Your task to perform on an android device: install app "DuckDuckGo Privacy Browser" Image 0: 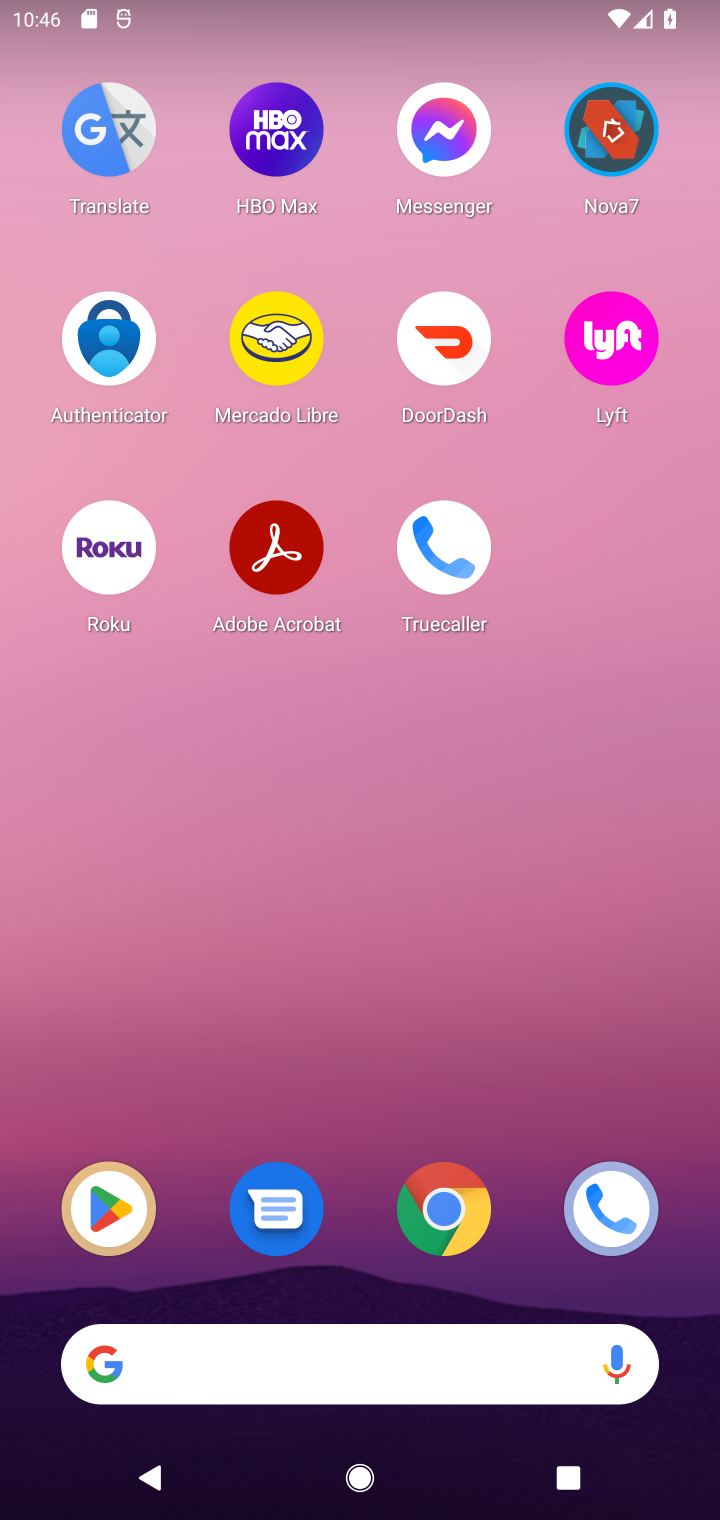
Step 0: drag from (543, 1041) to (512, 17)
Your task to perform on an android device: install app "DuckDuckGo Privacy Browser" Image 1: 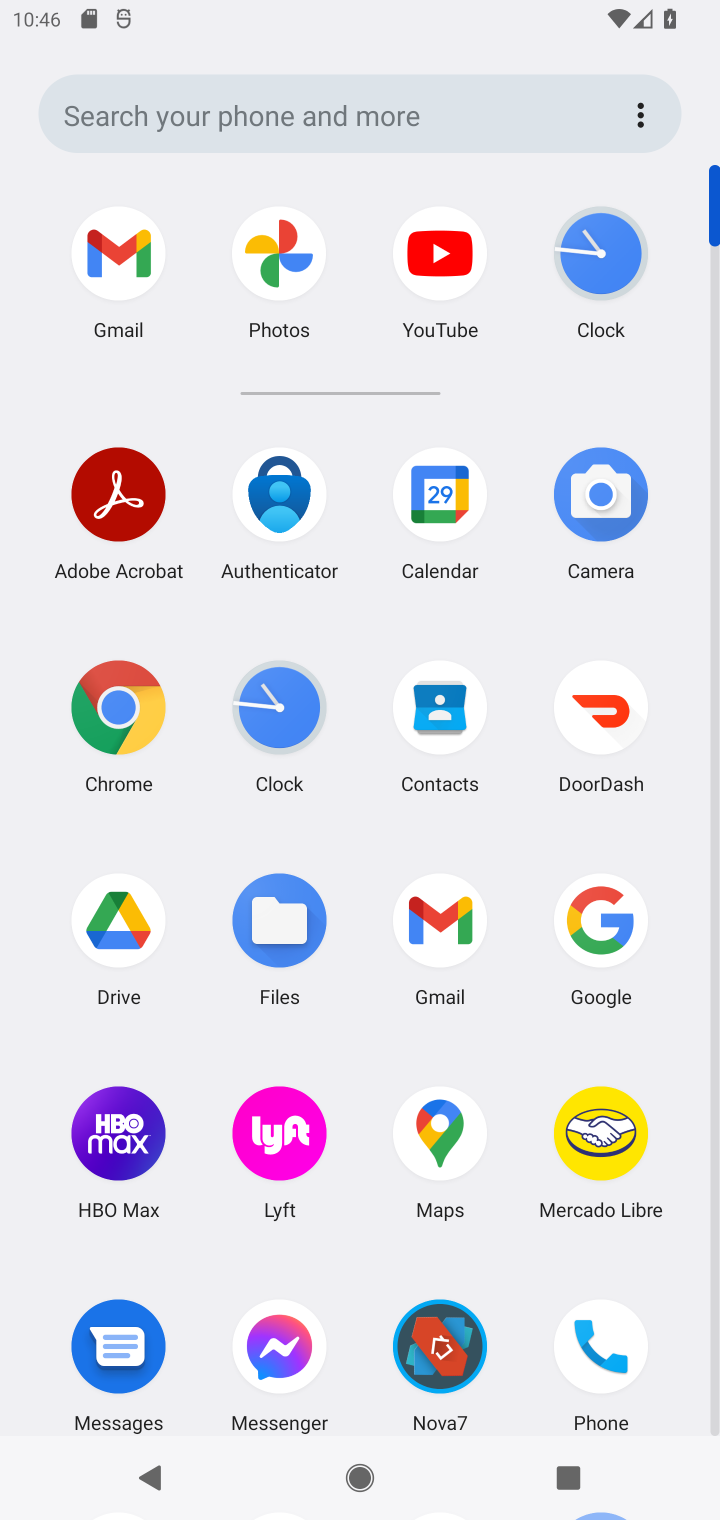
Step 1: drag from (345, 1243) to (387, 508)
Your task to perform on an android device: install app "DuckDuckGo Privacy Browser" Image 2: 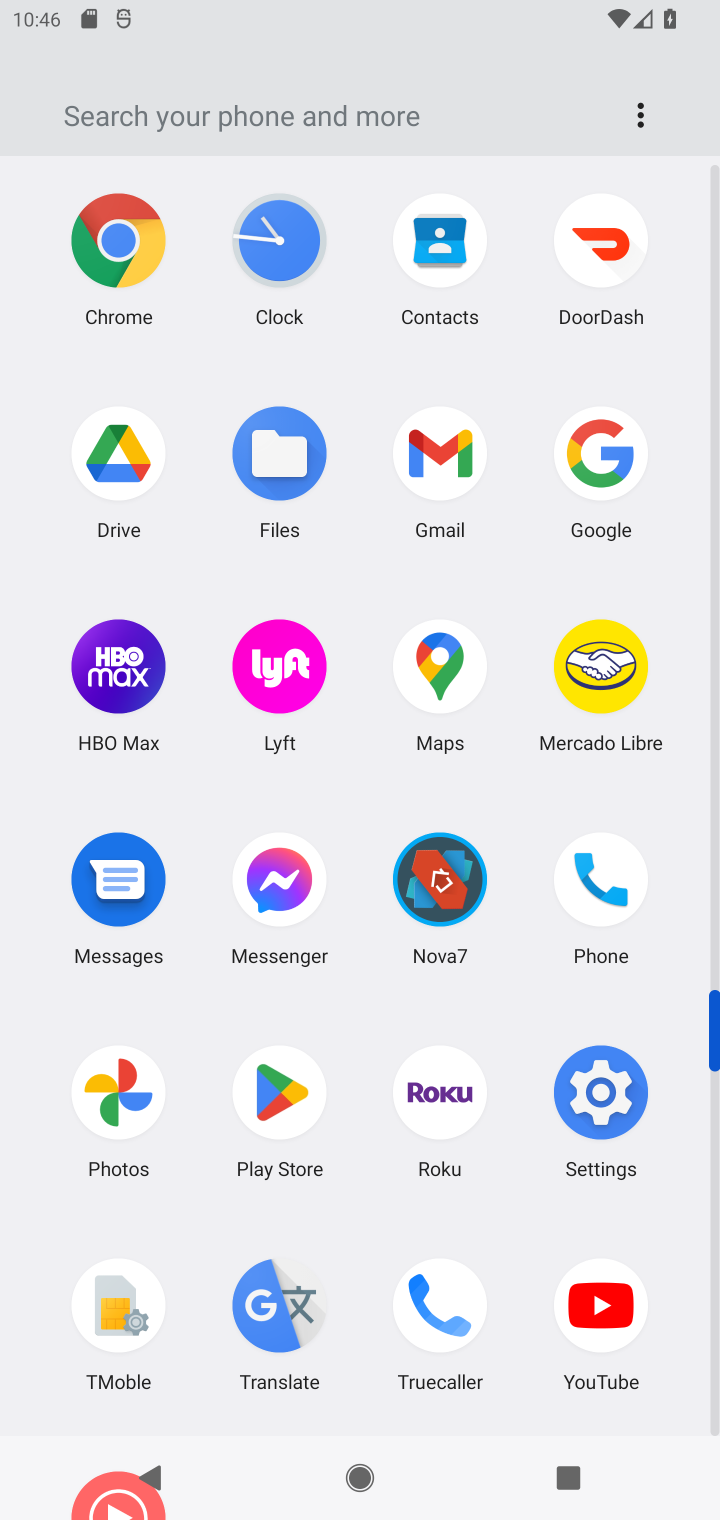
Step 2: click (267, 1086)
Your task to perform on an android device: install app "DuckDuckGo Privacy Browser" Image 3: 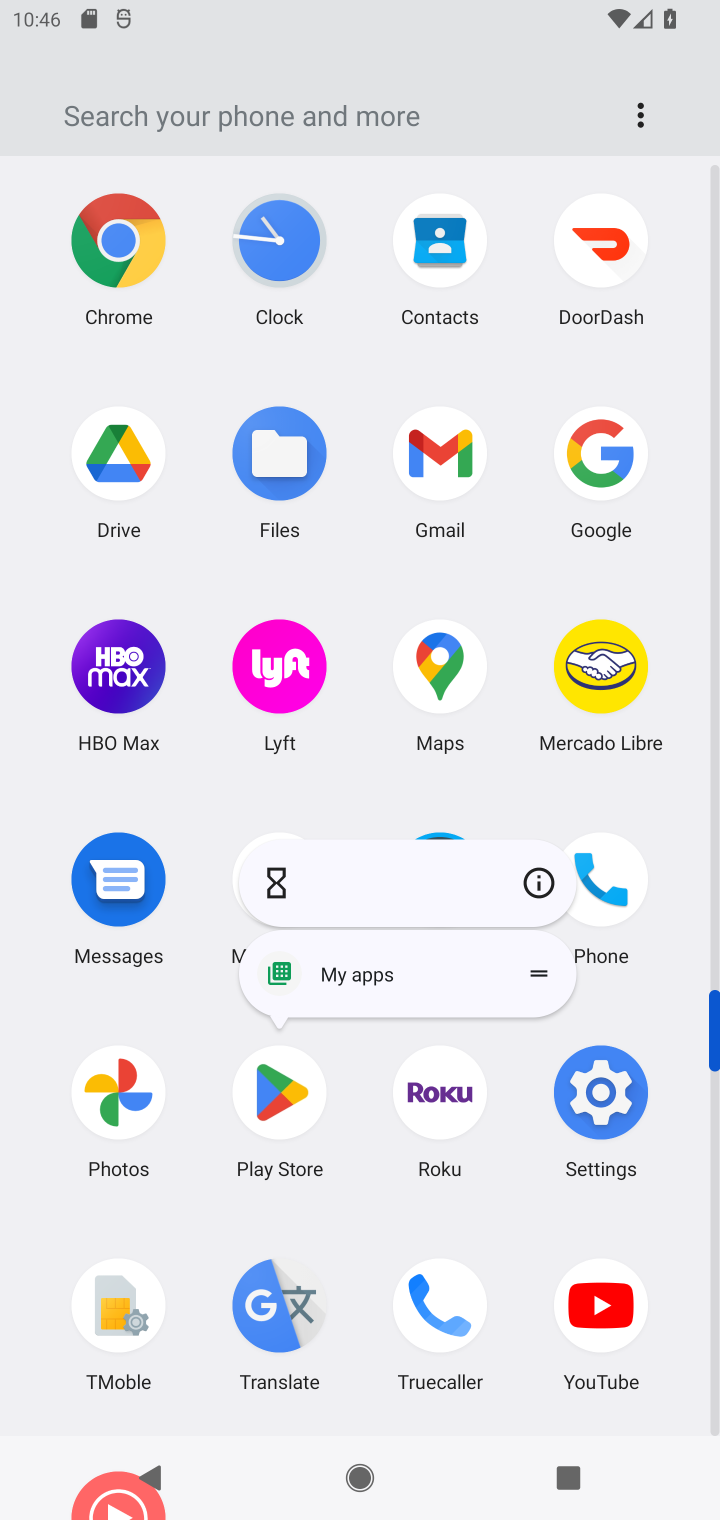
Step 3: click (267, 1086)
Your task to perform on an android device: install app "DuckDuckGo Privacy Browser" Image 4: 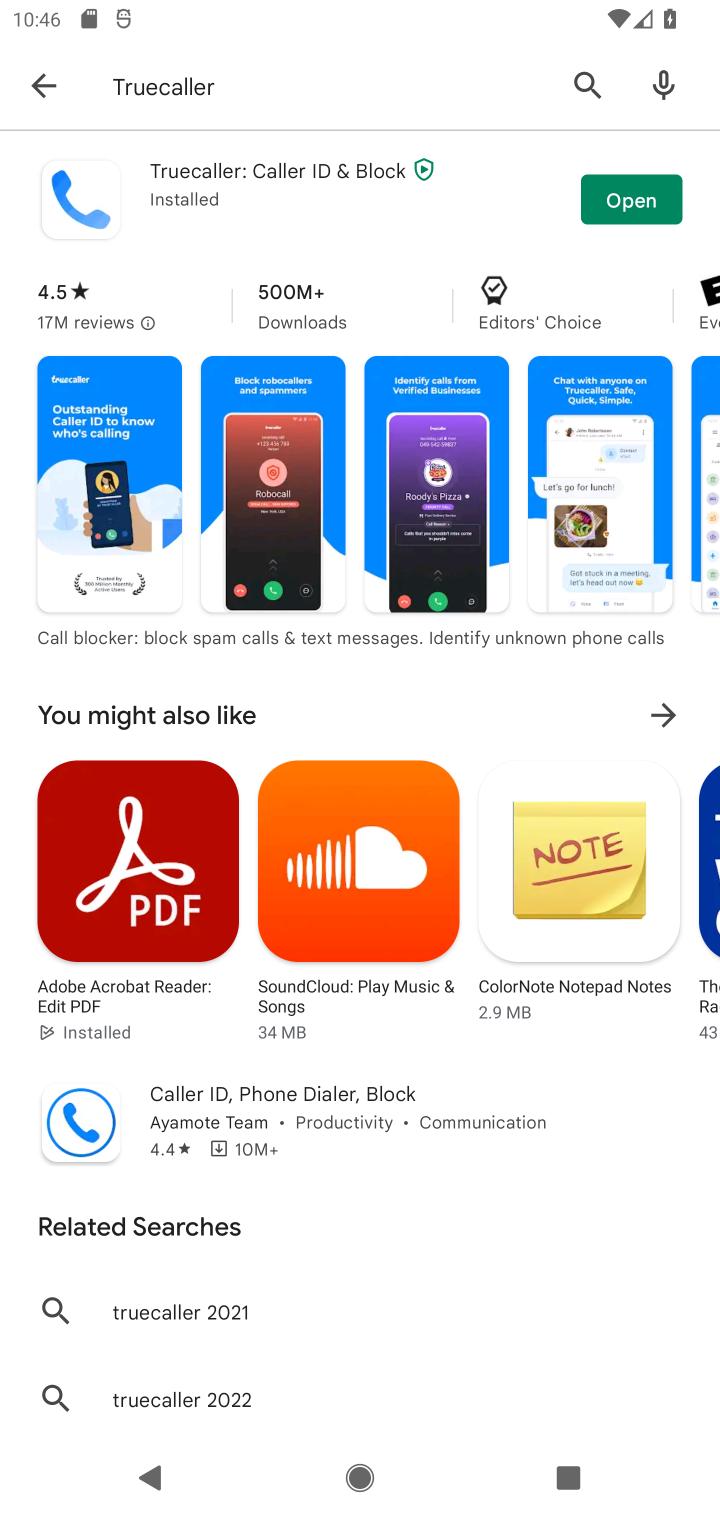
Step 4: click (341, 65)
Your task to perform on an android device: install app "DuckDuckGo Privacy Browser" Image 5: 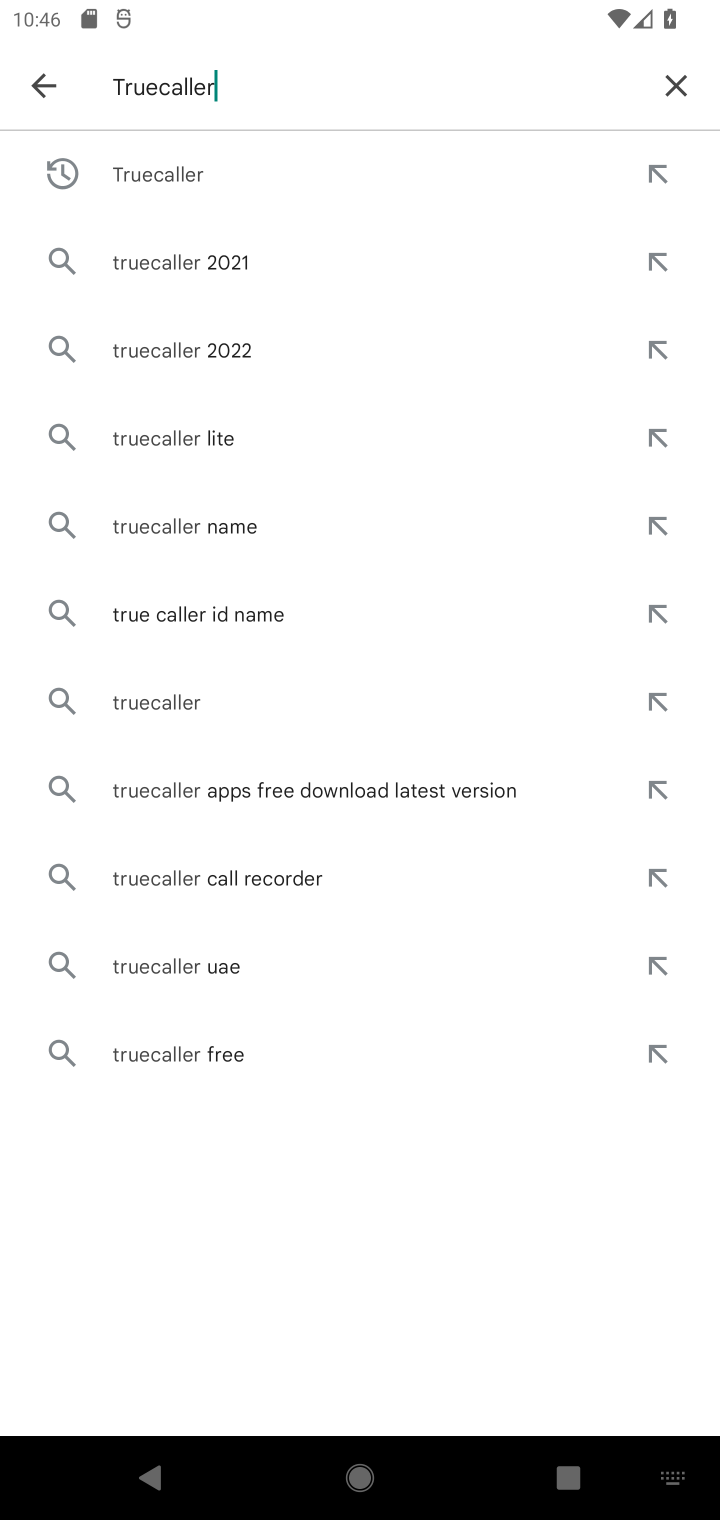
Step 5: click (674, 101)
Your task to perform on an android device: install app "DuckDuckGo Privacy Browser" Image 6: 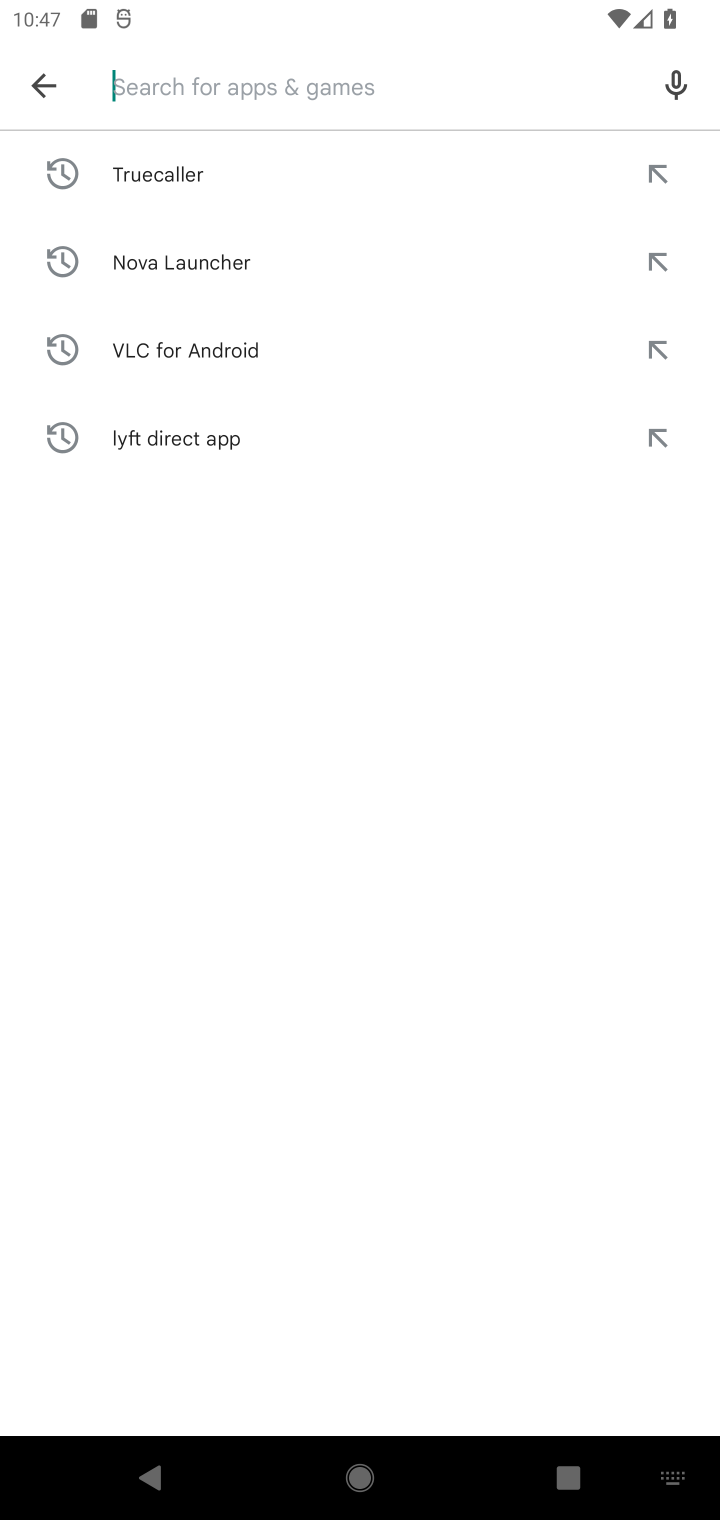
Step 6: type "DuckDuckGo Privacy Browser"
Your task to perform on an android device: install app "DuckDuckGo Privacy Browser" Image 7: 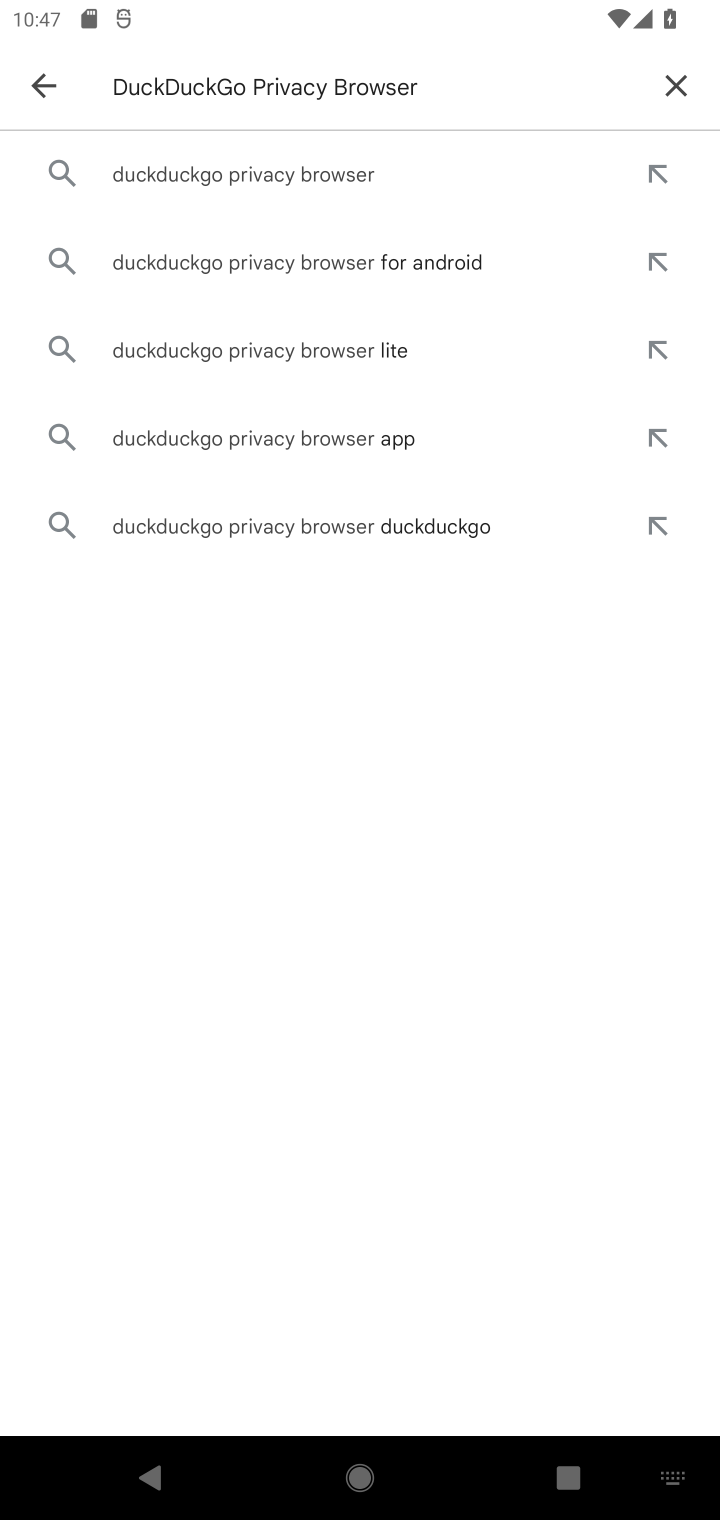
Step 7: press enter
Your task to perform on an android device: install app "DuckDuckGo Privacy Browser" Image 8: 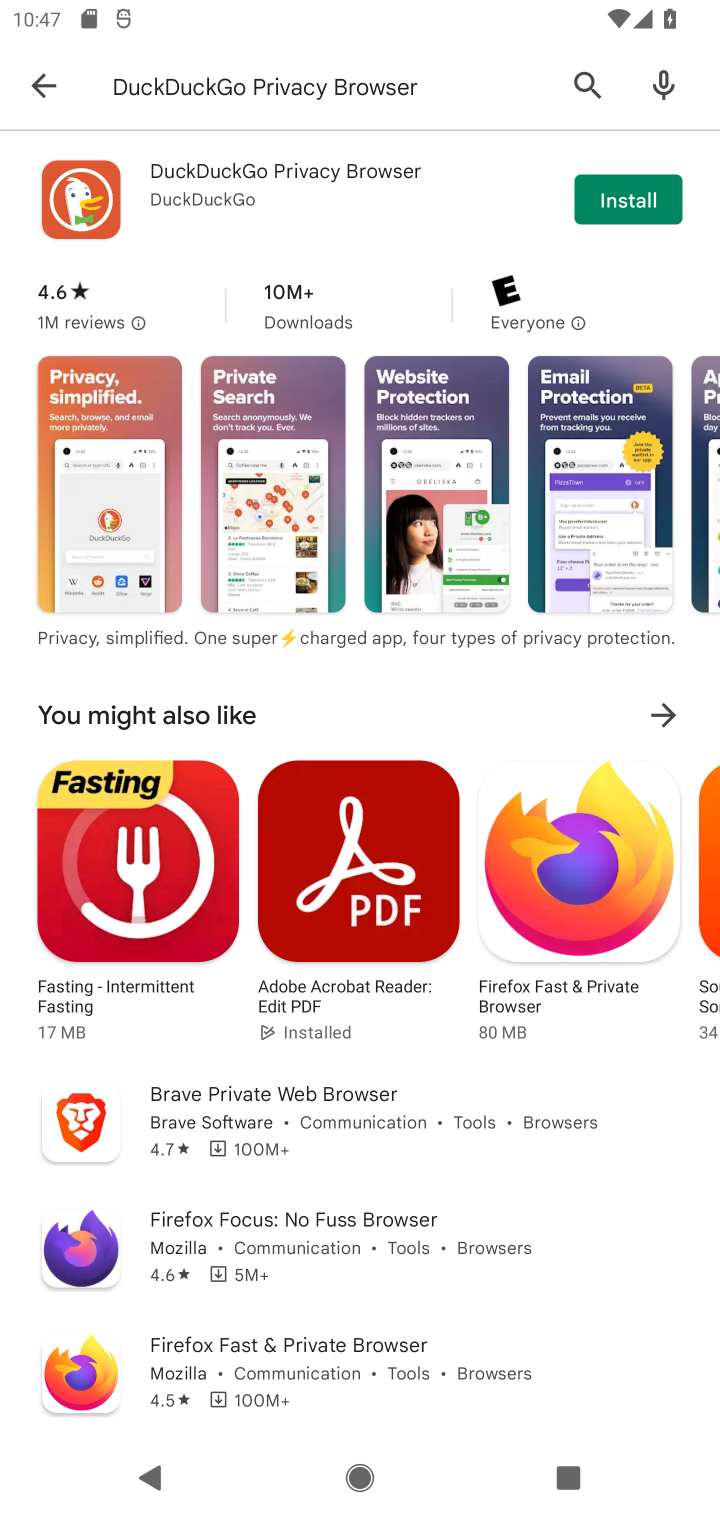
Step 8: click (651, 202)
Your task to perform on an android device: install app "DuckDuckGo Privacy Browser" Image 9: 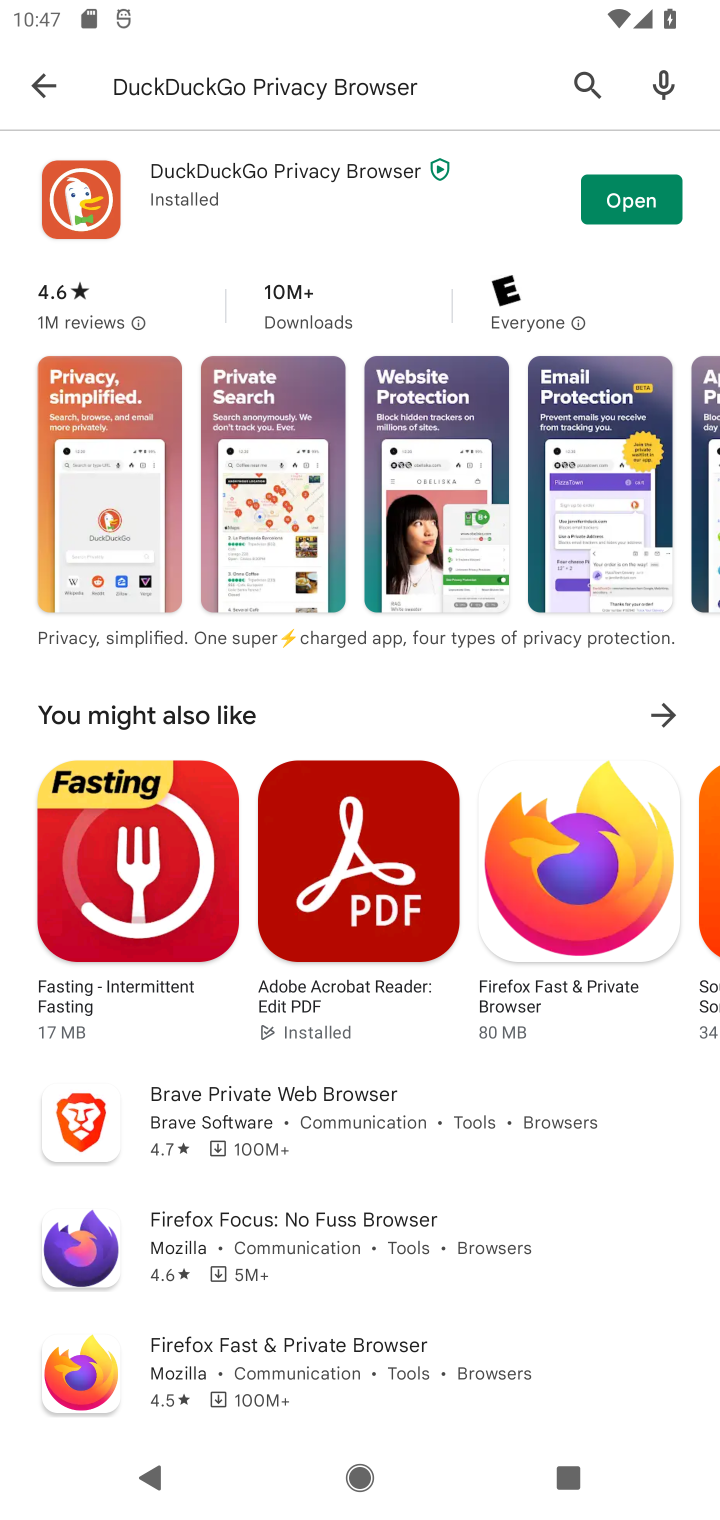
Step 9: task complete